Your task to perform on an android device: change notification settings in the gmail app Image 0: 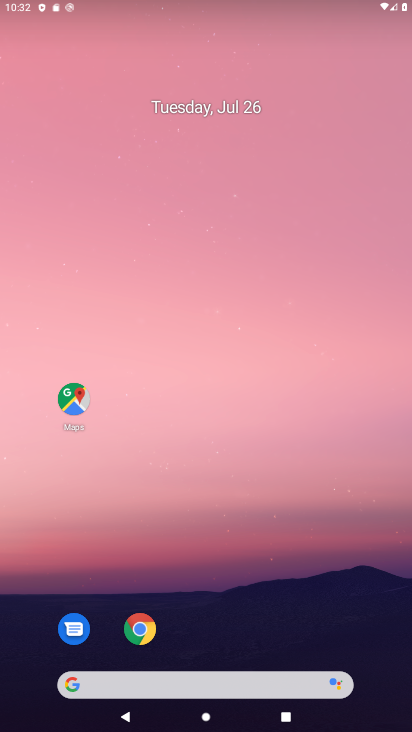
Step 0: drag from (337, 622) to (172, 68)
Your task to perform on an android device: change notification settings in the gmail app Image 1: 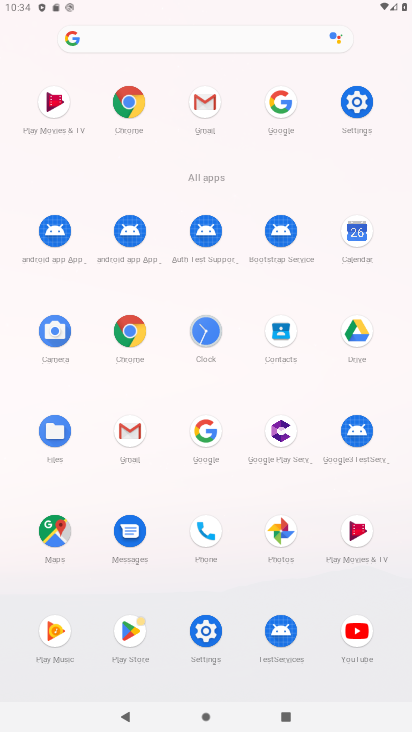
Step 1: click (115, 441)
Your task to perform on an android device: change notification settings in the gmail app Image 2: 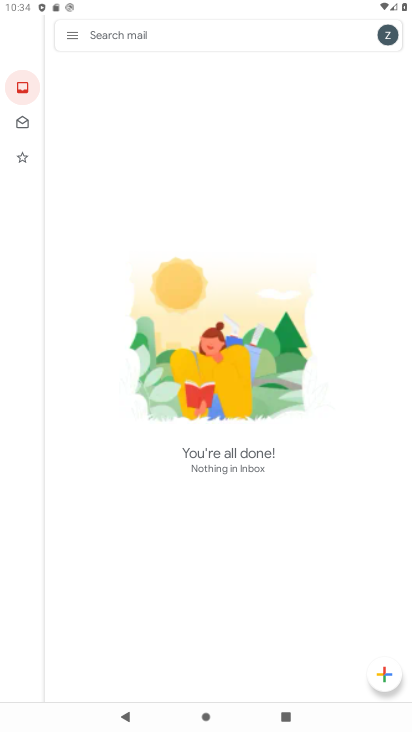
Step 2: click (70, 31)
Your task to perform on an android device: change notification settings in the gmail app Image 3: 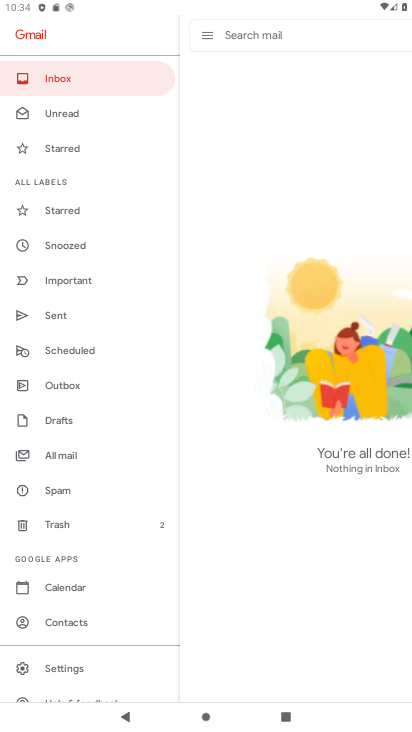
Step 3: click (50, 667)
Your task to perform on an android device: change notification settings in the gmail app Image 4: 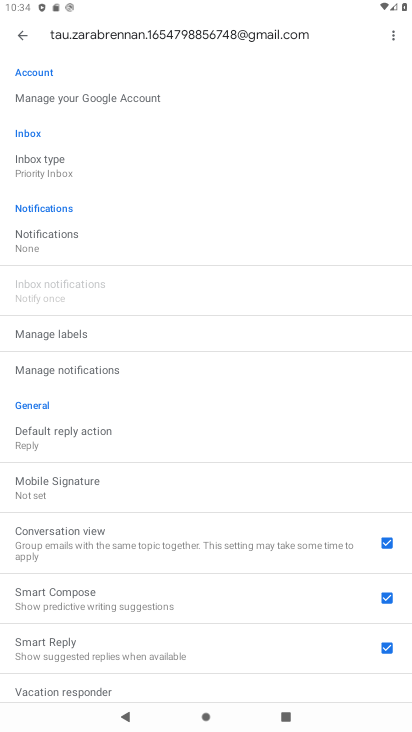
Step 4: click (62, 237)
Your task to perform on an android device: change notification settings in the gmail app Image 5: 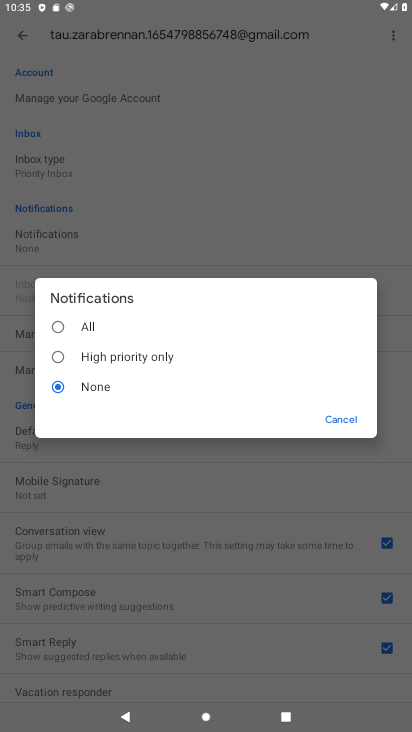
Step 5: click (73, 327)
Your task to perform on an android device: change notification settings in the gmail app Image 6: 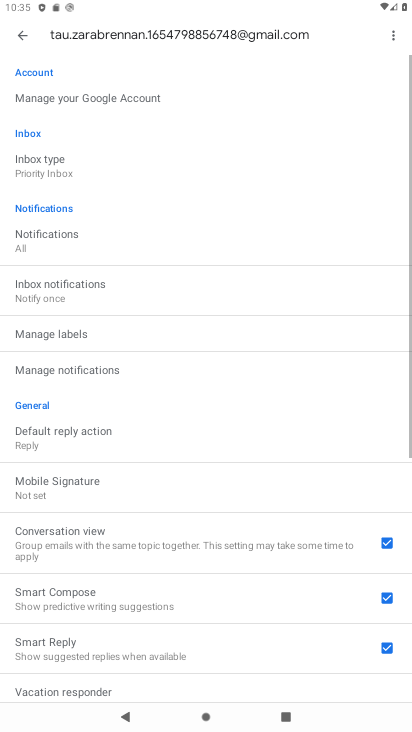
Step 6: task complete